Your task to perform on an android device: turn off notifications settings in the gmail app Image 0: 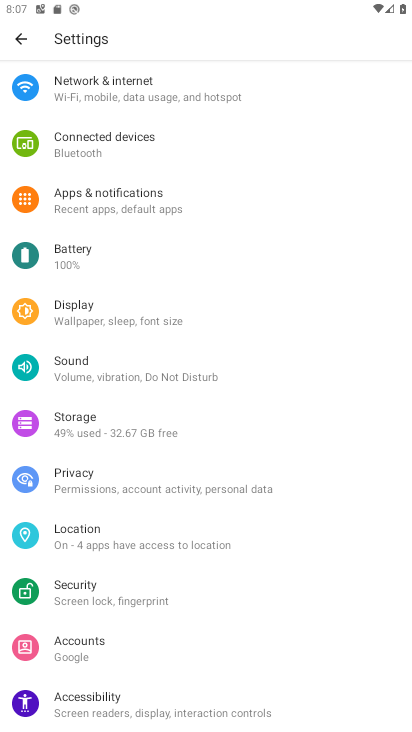
Step 0: press home button
Your task to perform on an android device: turn off notifications settings in the gmail app Image 1: 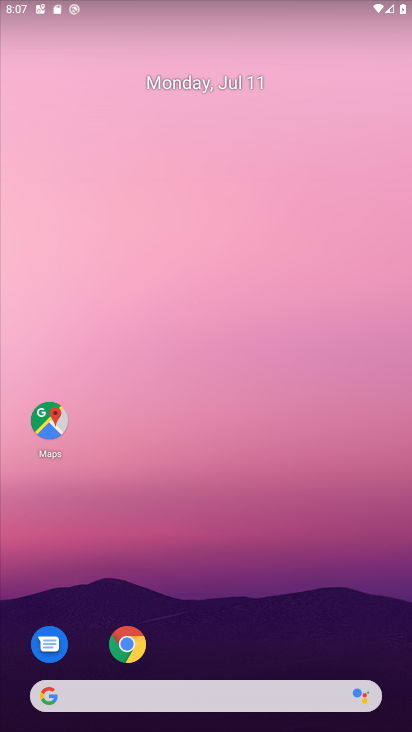
Step 1: drag from (254, 650) to (213, 70)
Your task to perform on an android device: turn off notifications settings in the gmail app Image 2: 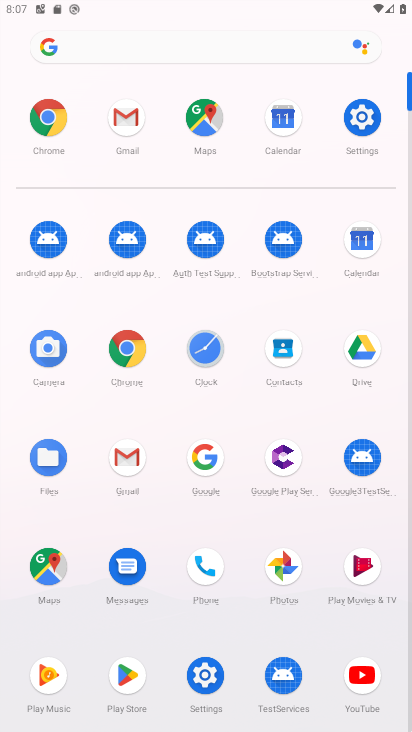
Step 2: click (126, 452)
Your task to perform on an android device: turn off notifications settings in the gmail app Image 3: 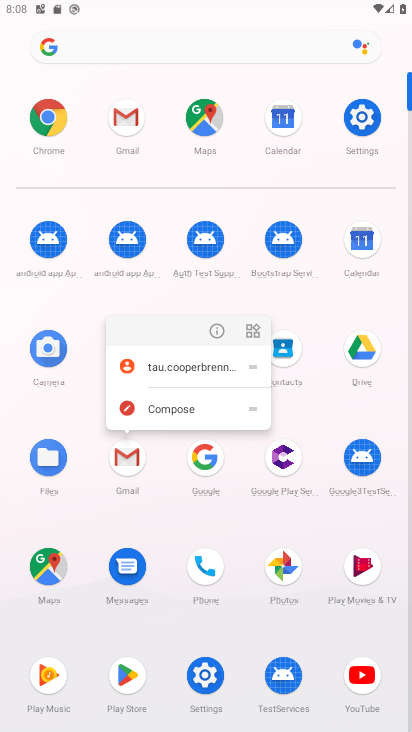
Step 3: click (126, 452)
Your task to perform on an android device: turn off notifications settings in the gmail app Image 4: 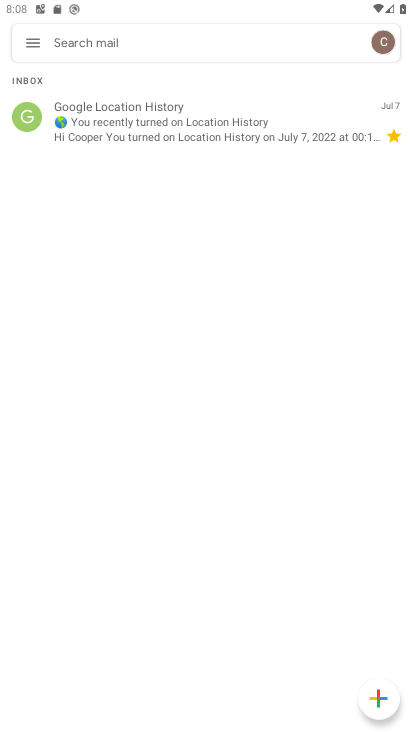
Step 4: click (30, 49)
Your task to perform on an android device: turn off notifications settings in the gmail app Image 5: 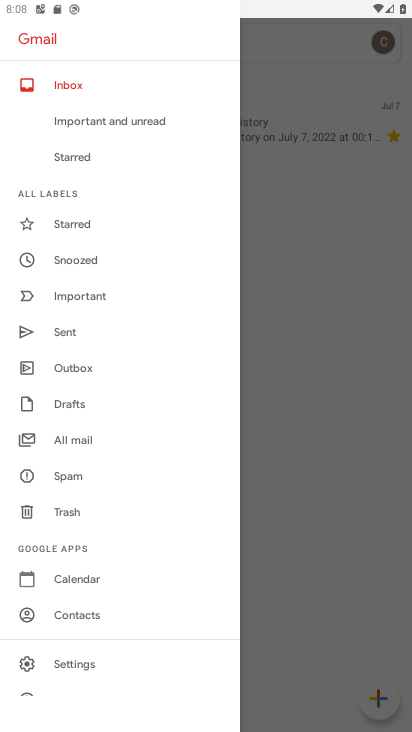
Step 5: click (92, 659)
Your task to perform on an android device: turn off notifications settings in the gmail app Image 6: 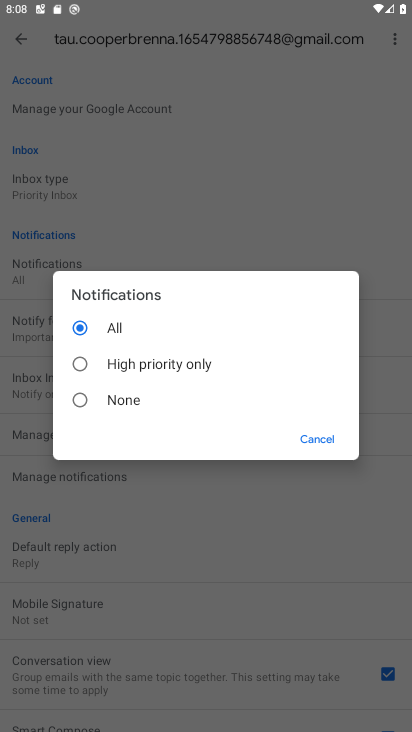
Step 6: click (137, 405)
Your task to perform on an android device: turn off notifications settings in the gmail app Image 7: 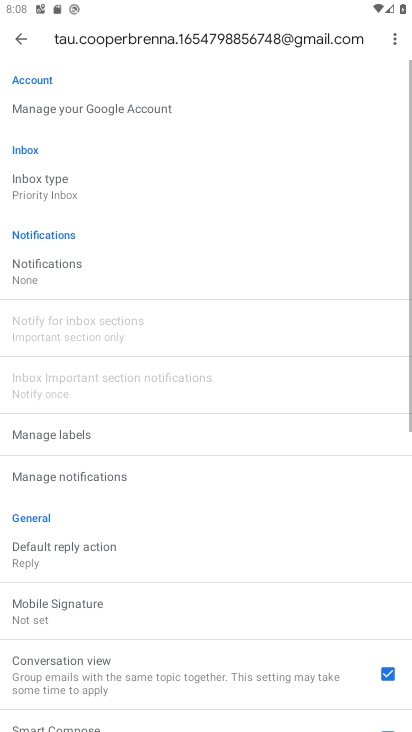
Step 7: task complete